Your task to perform on an android device: When is my next meeting? Image 0: 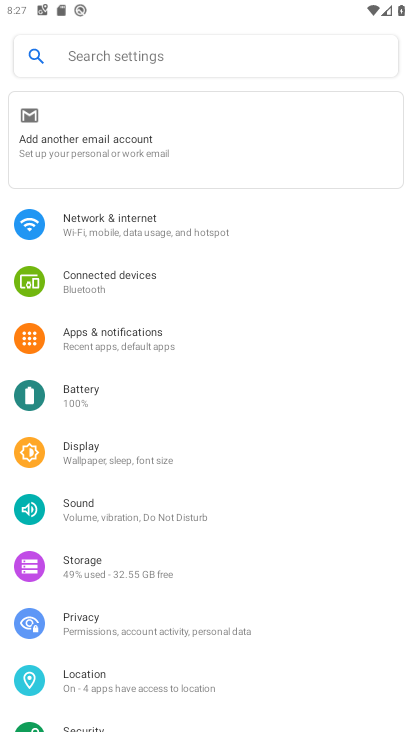
Step 0: press home button
Your task to perform on an android device: When is my next meeting? Image 1: 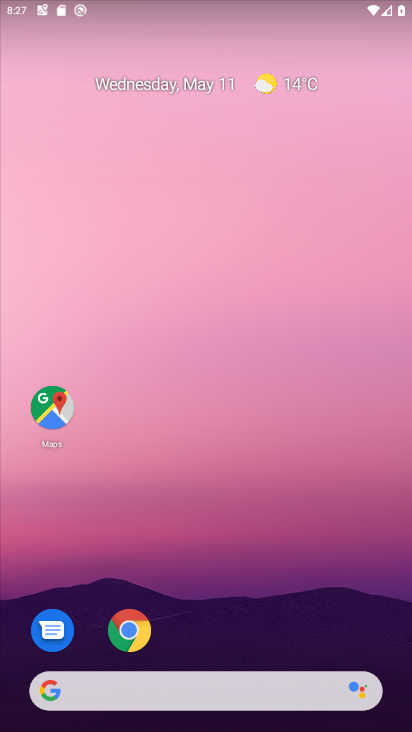
Step 1: drag from (8, 622) to (194, 192)
Your task to perform on an android device: When is my next meeting? Image 2: 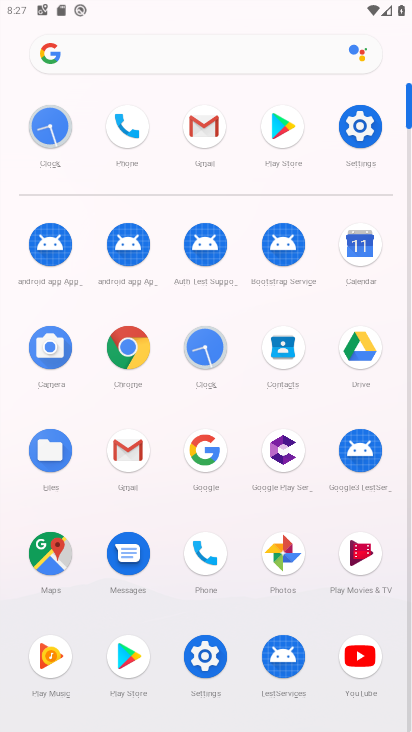
Step 2: click (364, 252)
Your task to perform on an android device: When is my next meeting? Image 3: 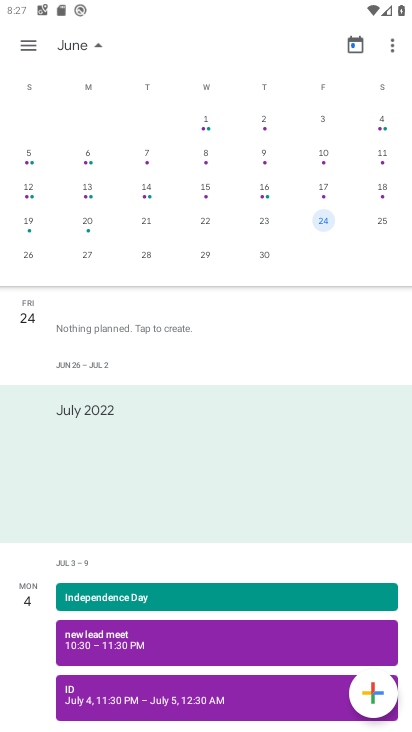
Step 3: drag from (8, 178) to (360, 170)
Your task to perform on an android device: When is my next meeting? Image 4: 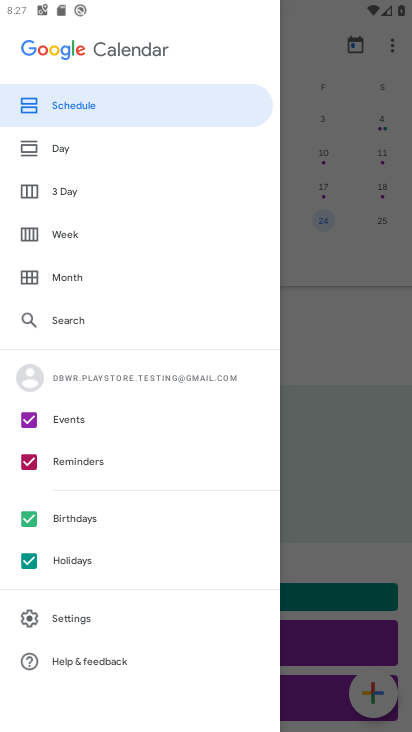
Step 4: click (402, 252)
Your task to perform on an android device: When is my next meeting? Image 5: 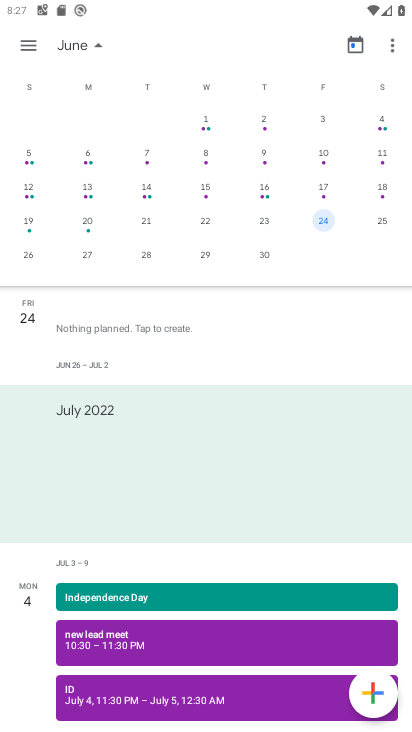
Step 5: drag from (50, 190) to (410, 169)
Your task to perform on an android device: When is my next meeting? Image 6: 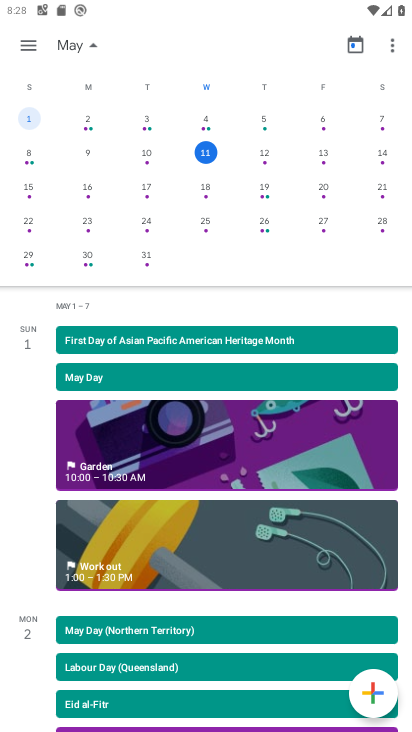
Step 6: click (265, 156)
Your task to perform on an android device: When is my next meeting? Image 7: 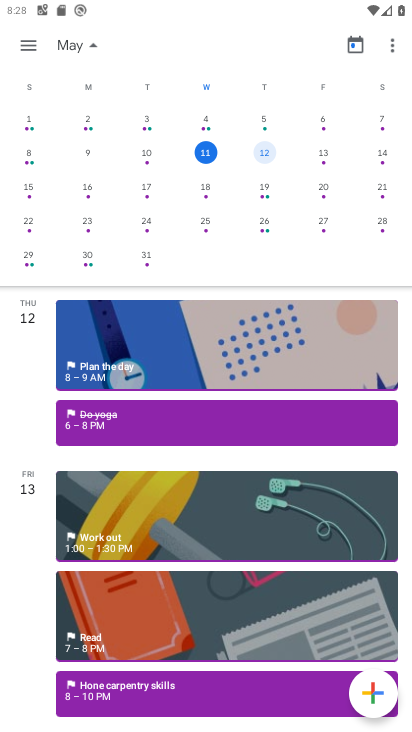
Step 7: task complete